Your task to perform on an android device: Is it going to rain today? Image 0: 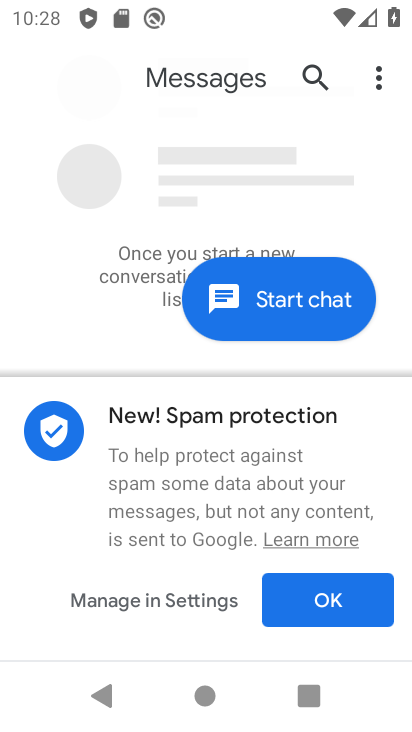
Step 0: drag from (281, 544) to (241, 15)
Your task to perform on an android device: Is it going to rain today? Image 1: 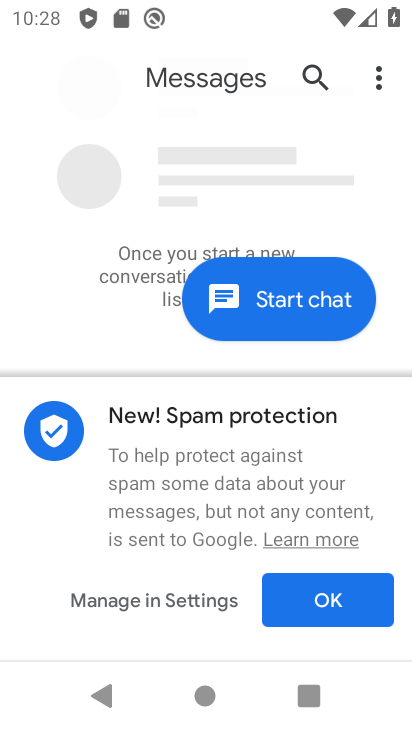
Step 1: press home button
Your task to perform on an android device: Is it going to rain today? Image 2: 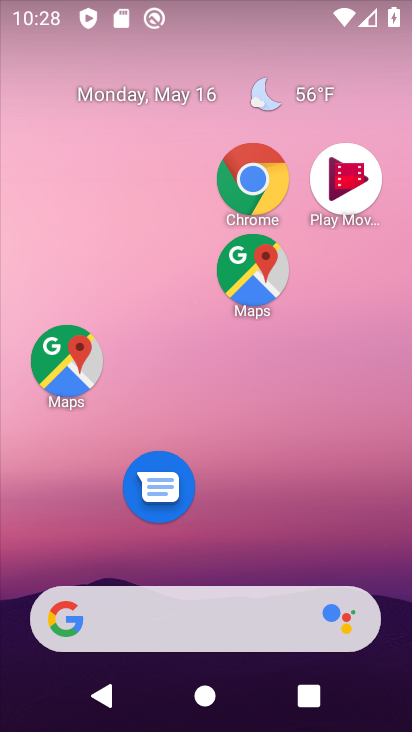
Step 2: drag from (224, 557) to (224, 88)
Your task to perform on an android device: Is it going to rain today? Image 3: 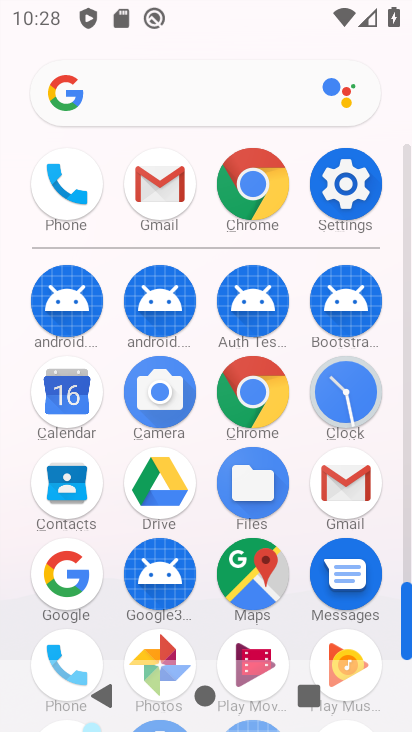
Step 3: click (345, 419)
Your task to perform on an android device: Is it going to rain today? Image 4: 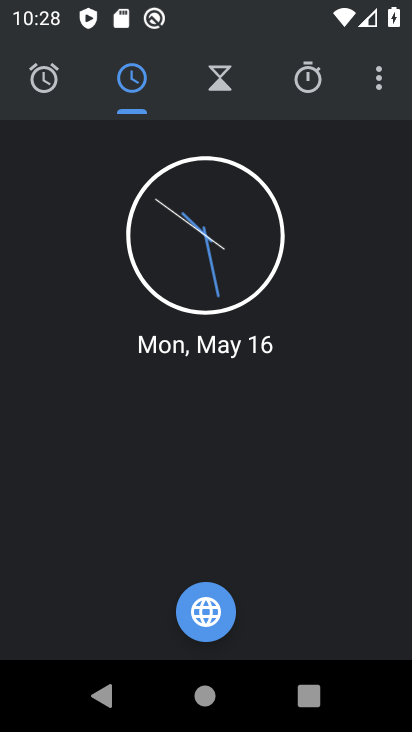
Step 4: click (373, 67)
Your task to perform on an android device: Is it going to rain today? Image 5: 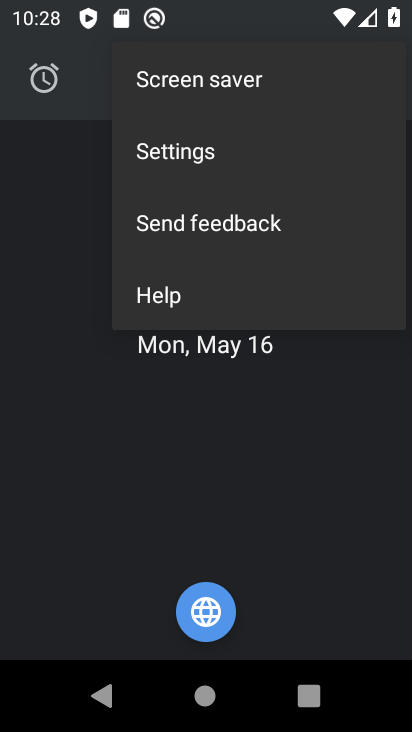
Step 5: click (240, 140)
Your task to perform on an android device: Is it going to rain today? Image 6: 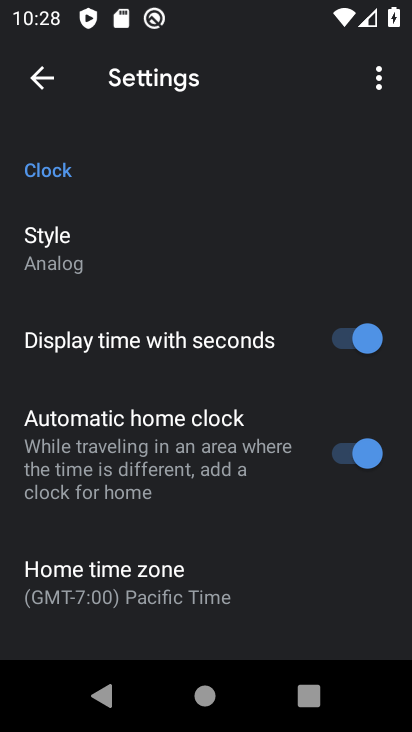
Step 6: click (196, 155)
Your task to perform on an android device: Is it going to rain today? Image 7: 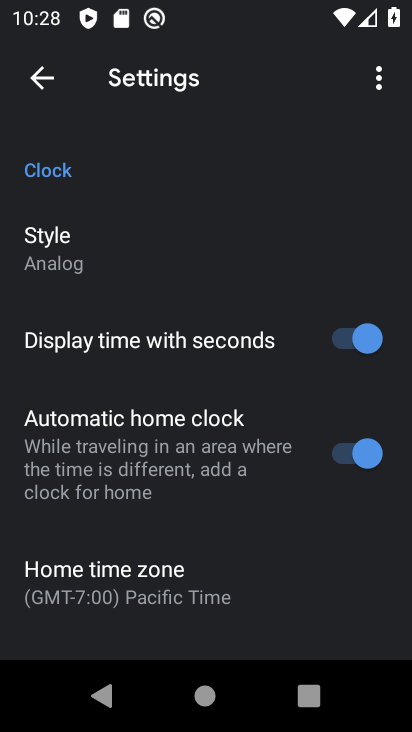
Step 7: drag from (109, 538) to (136, 406)
Your task to perform on an android device: Is it going to rain today? Image 8: 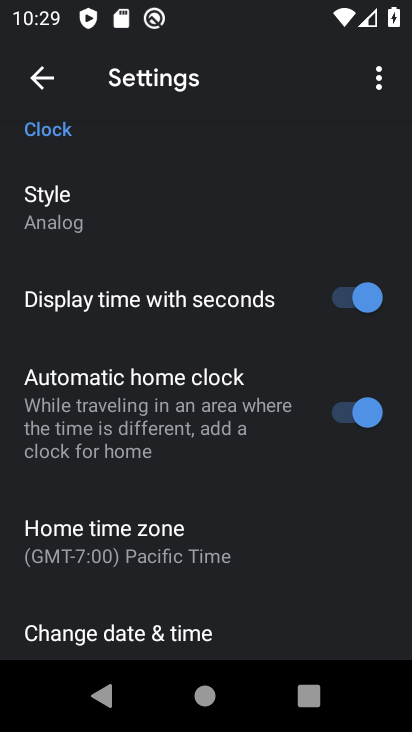
Step 8: press home button
Your task to perform on an android device: Is it going to rain today? Image 9: 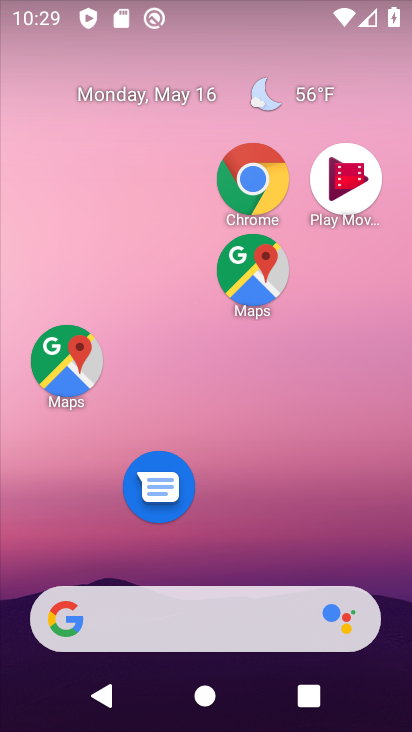
Step 9: click (149, 635)
Your task to perform on an android device: Is it going to rain today? Image 10: 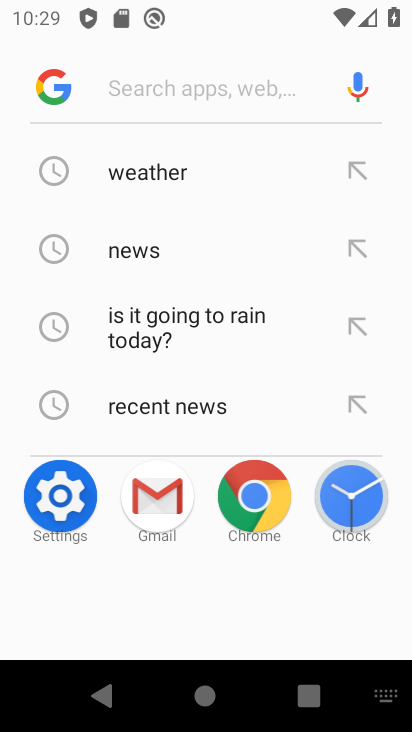
Step 10: click (145, 170)
Your task to perform on an android device: Is it going to rain today? Image 11: 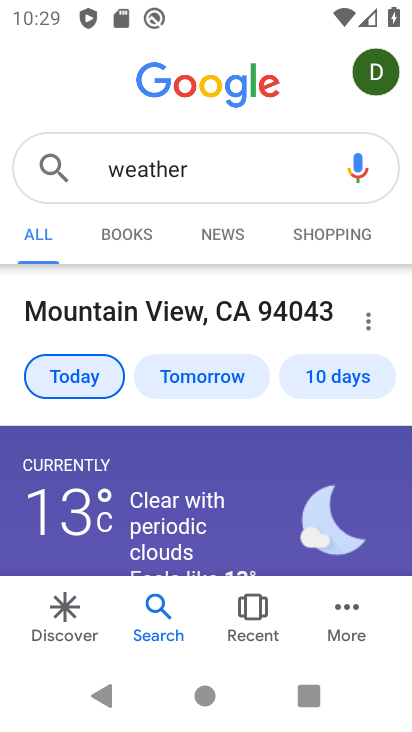
Step 11: drag from (165, 535) to (175, 308)
Your task to perform on an android device: Is it going to rain today? Image 12: 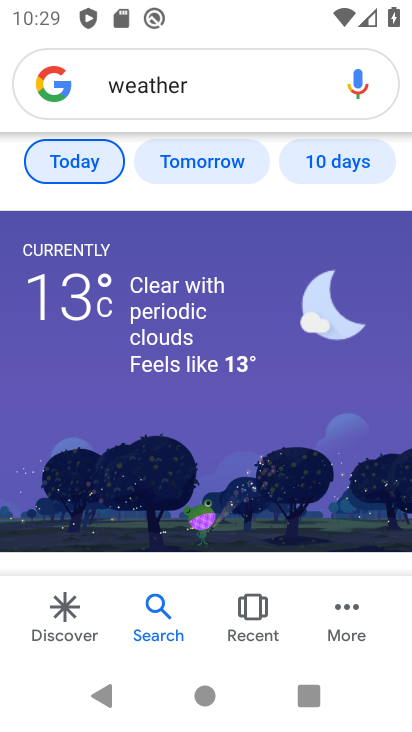
Step 12: click (256, 284)
Your task to perform on an android device: Is it going to rain today? Image 13: 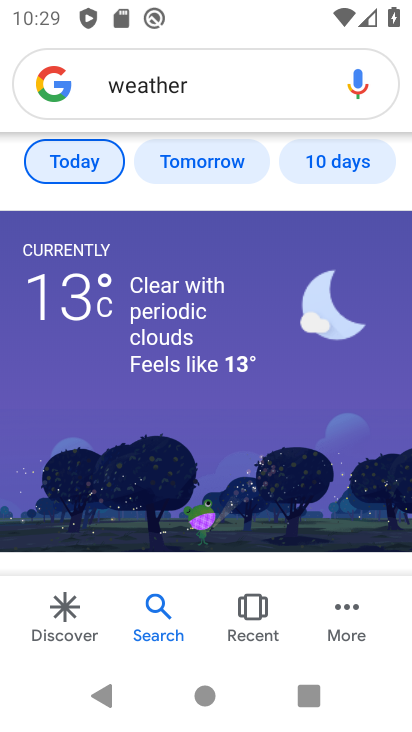
Step 13: drag from (163, 400) to (153, 290)
Your task to perform on an android device: Is it going to rain today? Image 14: 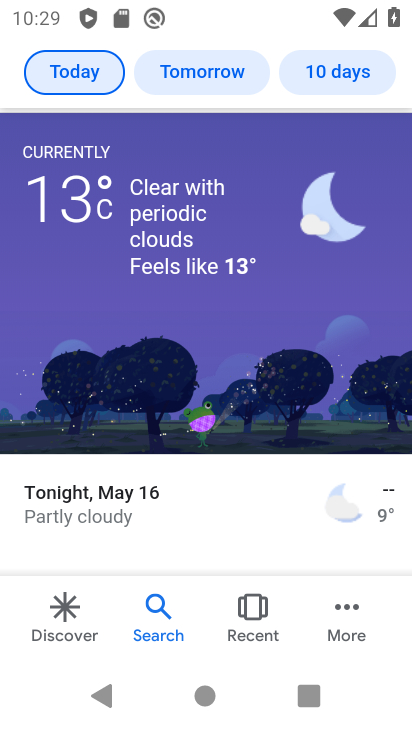
Step 14: click (90, 269)
Your task to perform on an android device: Is it going to rain today? Image 15: 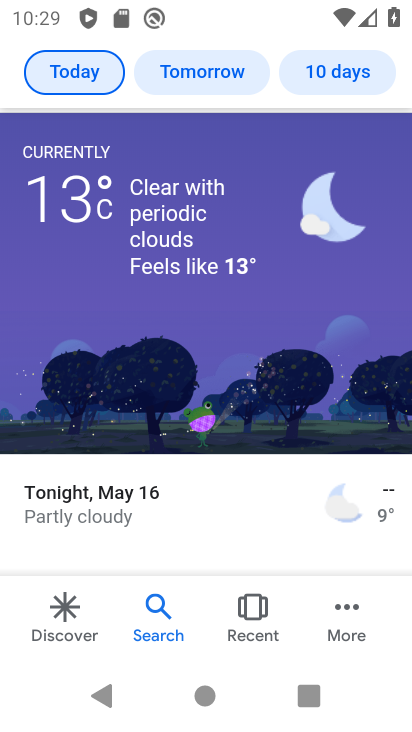
Step 15: click (161, 396)
Your task to perform on an android device: Is it going to rain today? Image 16: 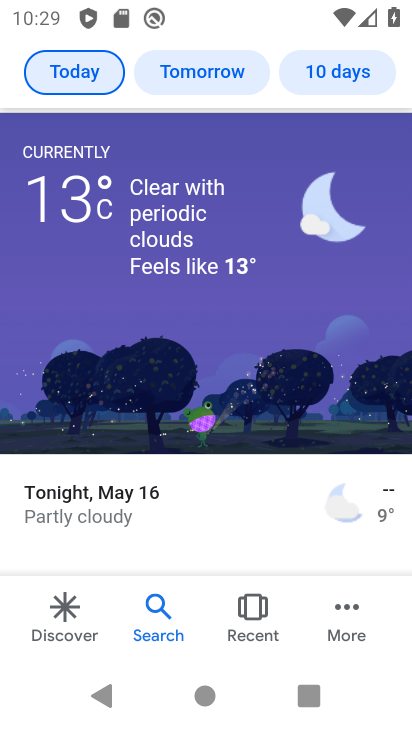
Step 16: task complete